Your task to perform on an android device: make emails show in primary in the gmail app Image 0: 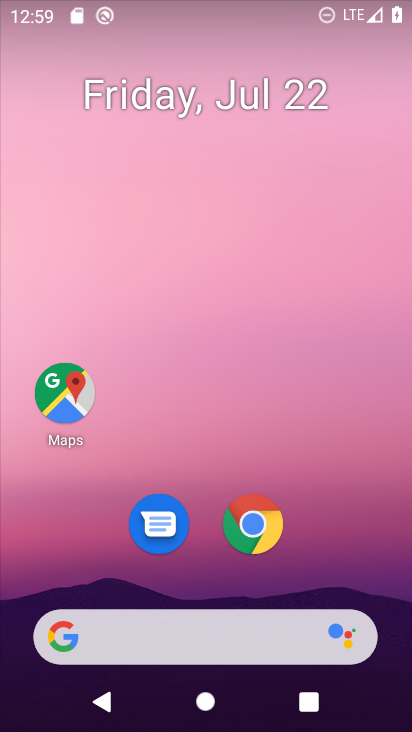
Step 0: drag from (341, 545) to (362, 85)
Your task to perform on an android device: make emails show in primary in the gmail app Image 1: 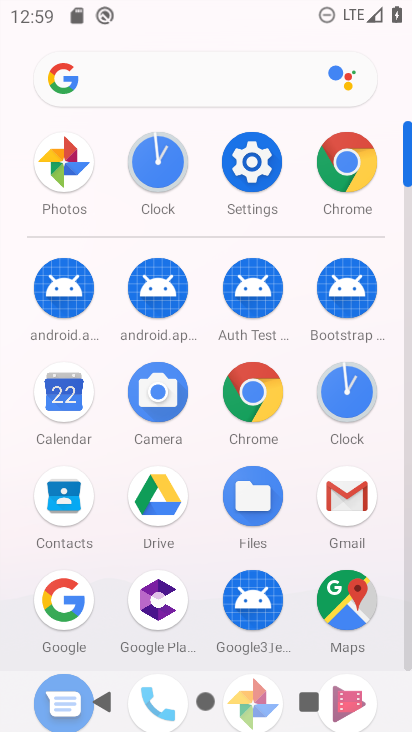
Step 1: click (348, 485)
Your task to perform on an android device: make emails show in primary in the gmail app Image 2: 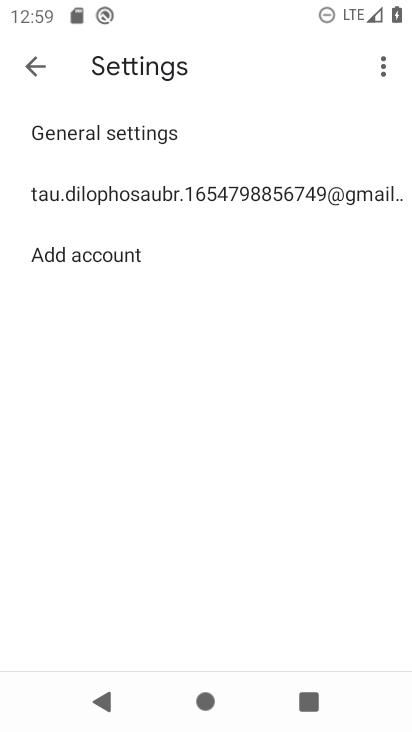
Step 2: click (257, 198)
Your task to perform on an android device: make emails show in primary in the gmail app Image 3: 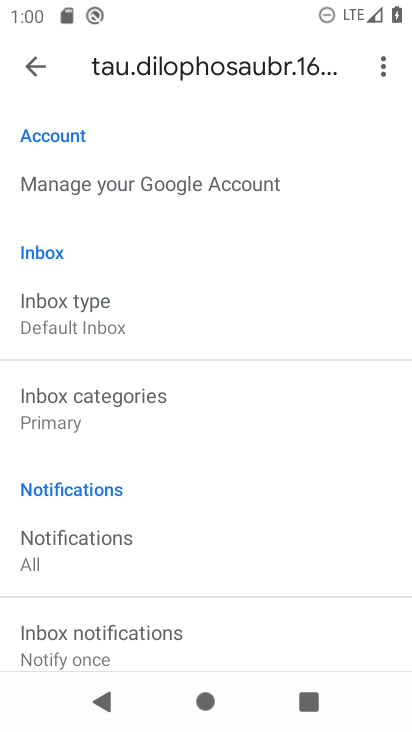
Step 3: task complete